Your task to perform on an android device: toggle translation in the chrome app Image 0: 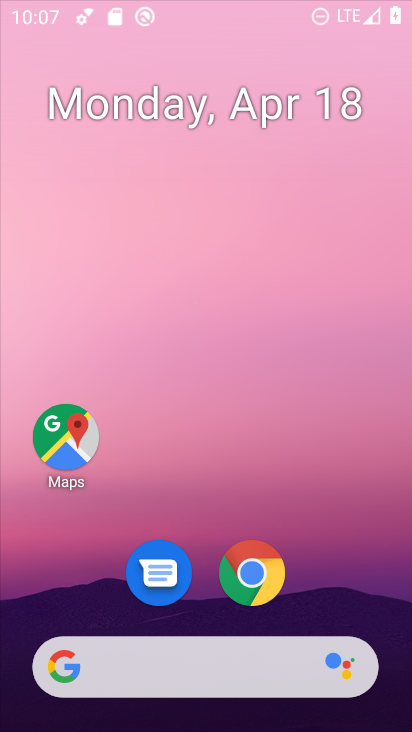
Step 0: drag from (313, 76) to (297, 45)
Your task to perform on an android device: toggle translation in the chrome app Image 1: 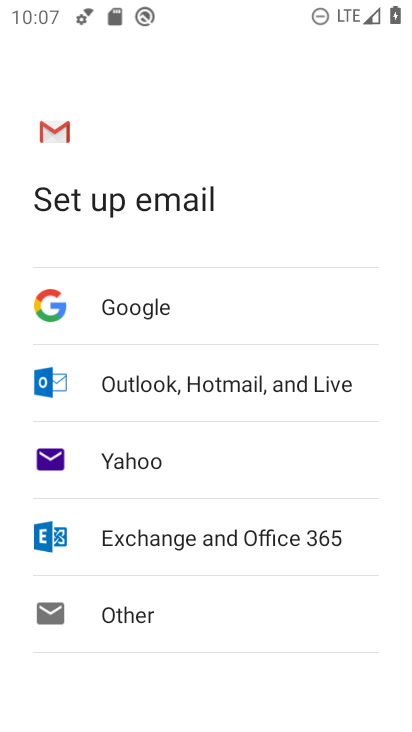
Step 1: press home button
Your task to perform on an android device: toggle translation in the chrome app Image 2: 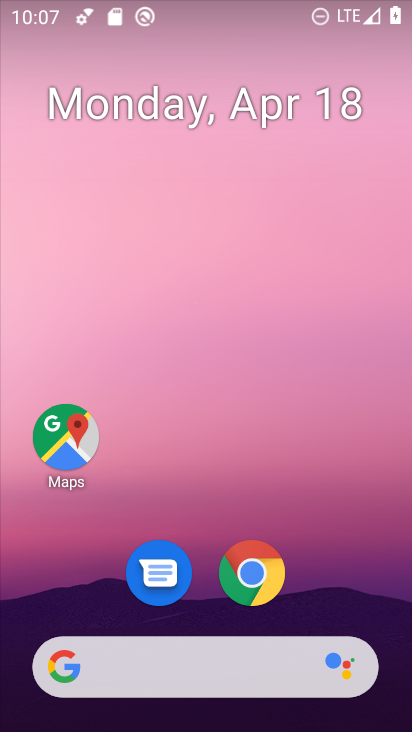
Step 2: drag from (346, 600) to (324, 469)
Your task to perform on an android device: toggle translation in the chrome app Image 3: 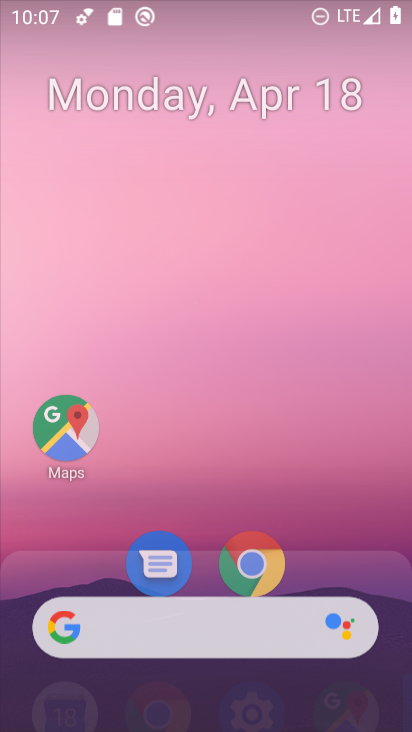
Step 3: drag from (305, 131) to (292, 68)
Your task to perform on an android device: toggle translation in the chrome app Image 4: 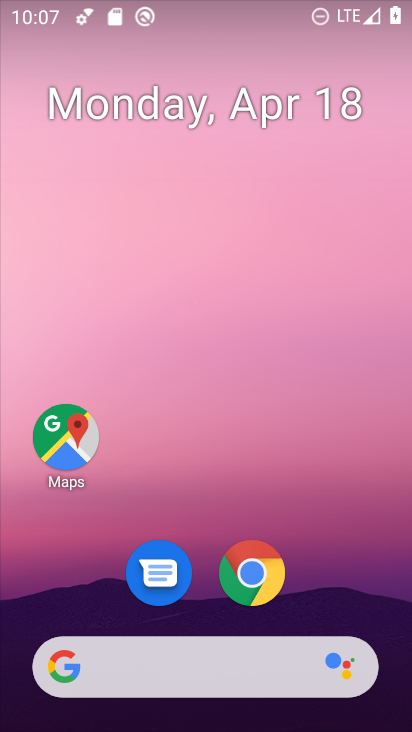
Step 4: drag from (357, 596) to (302, 25)
Your task to perform on an android device: toggle translation in the chrome app Image 5: 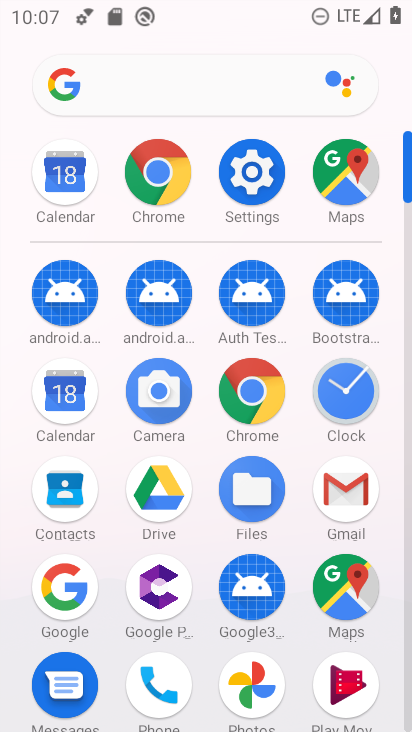
Step 5: click (154, 160)
Your task to perform on an android device: toggle translation in the chrome app Image 6: 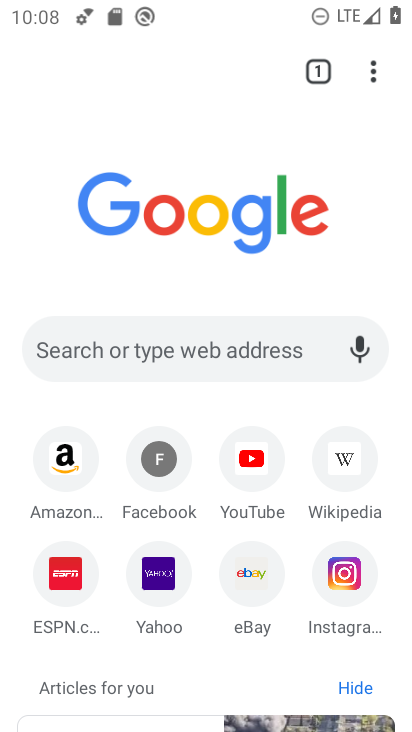
Step 6: click (375, 63)
Your task to perform on an android device: toggle translation in the chrome app Image 7: 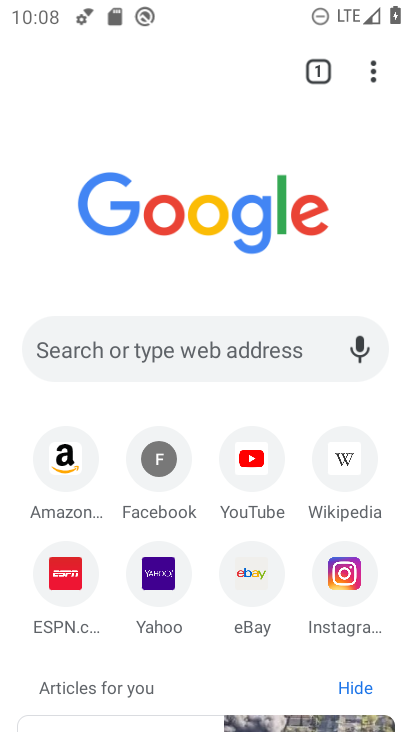
Step 7: click (368, 62)
Your task to perform on an android device: toggle translation in the chrome app Image 8: 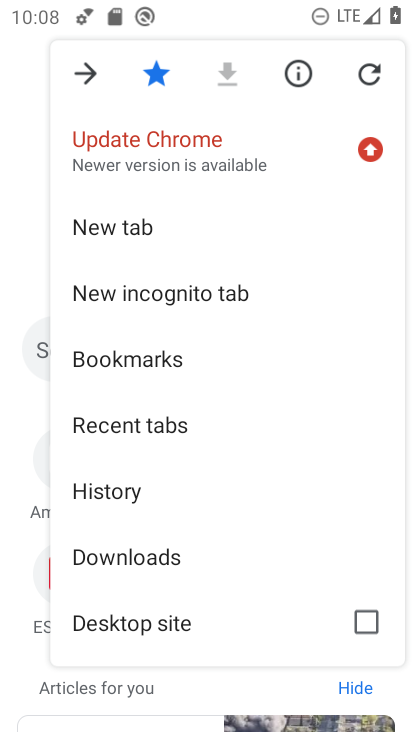
Step 8: drag from (164, 601) to (147, 121)
Your task to perform on an android device: toggle translation in the chrome app Image 9: 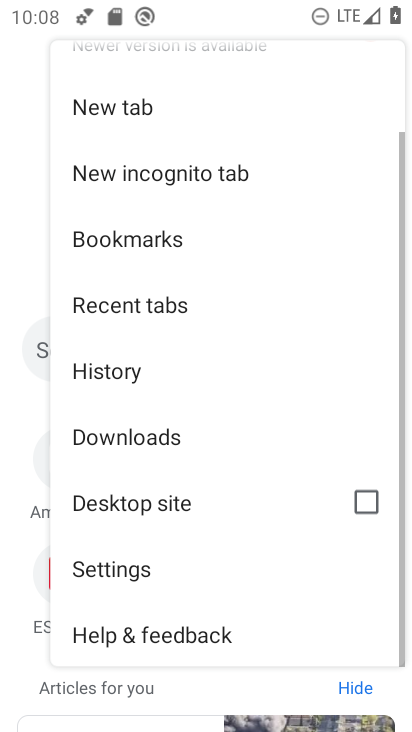
Step 9: click (125, 581)
Your task to perform on an android device: toggle translation in the chrome app Image 10: 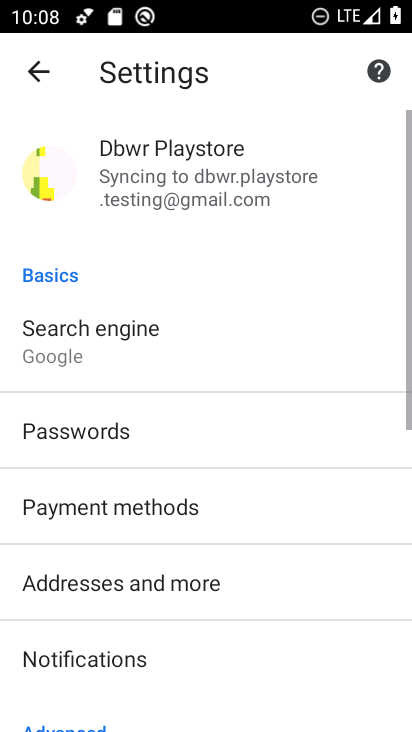
Step 10: drag from (138, 567) to (183, 149)
Your task to perform on an android device: toggle translation in the chrome app Image 11: 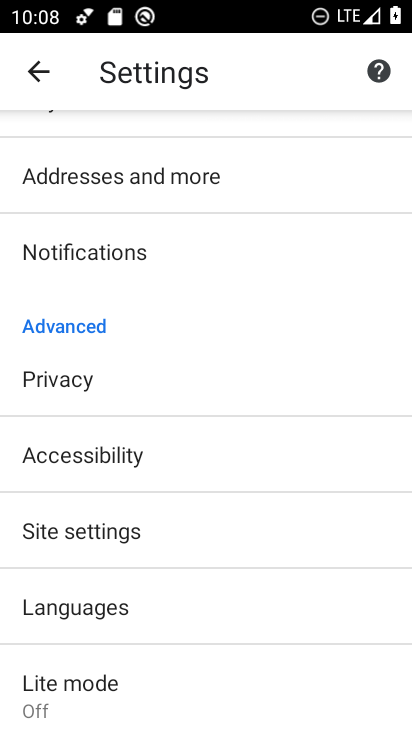
Step 11: click (133, 603)
Your task to perform on an android device: toggle translation in the chrome app Image 12: 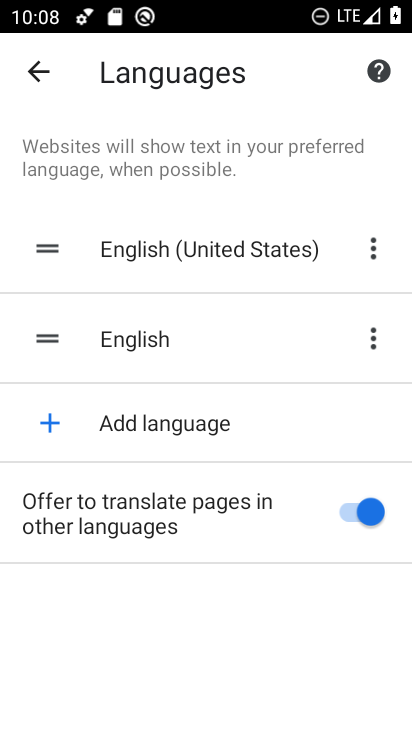
Step 12: click (291, 514)
Your task to perform on an android device: toggle translation in the chrome app Image 13: 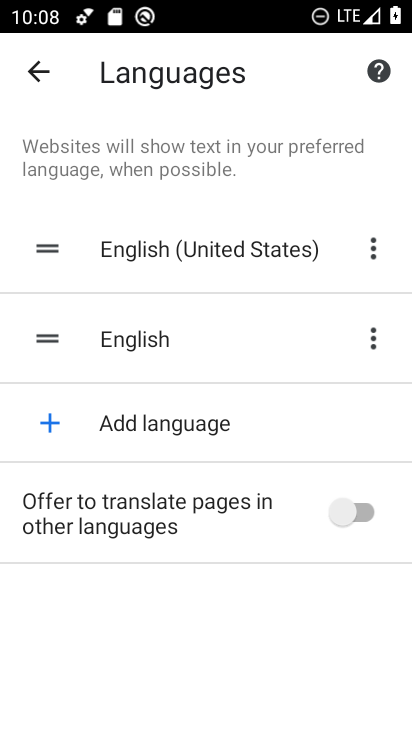
Step 13: task complete